Your task to perform on an android device: Go to Wikipedia Image 0: 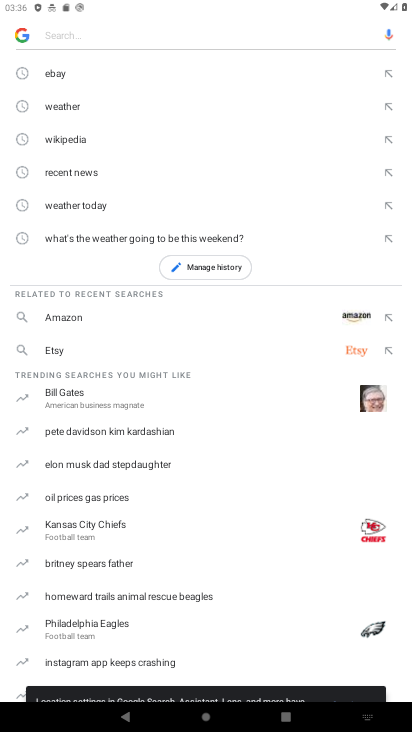
Step 0: press home button
Your task to perform on an android device: Go to Wikipedia Image 1: 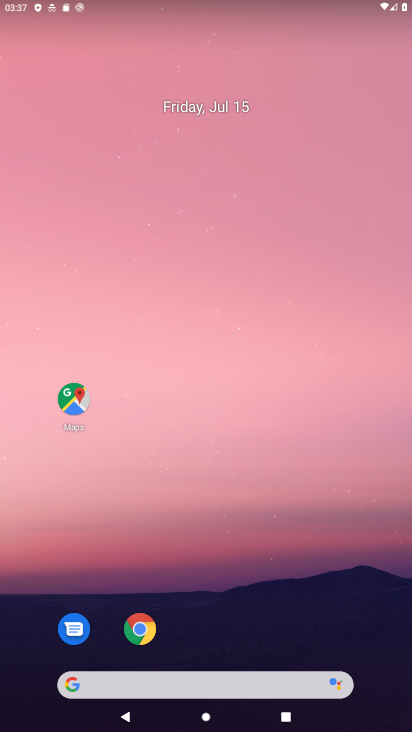
Step 1: click (134, 614)
Your task to perform on an android device: Go to Wikipedia Image 2: 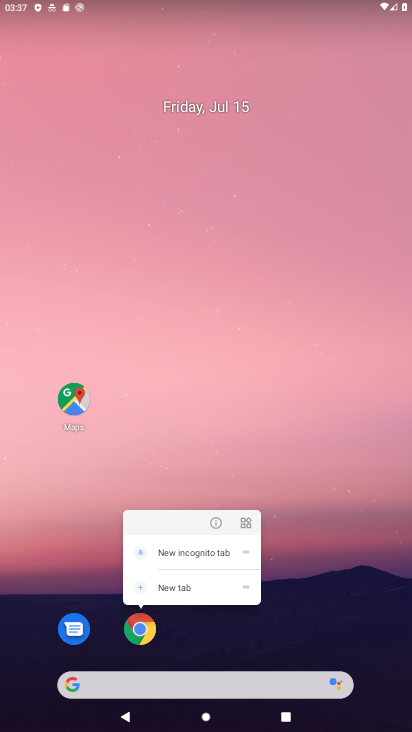
Step 2: click (141, 616)
Your task to perform on an android device: Go to Wikipedia Image 3: 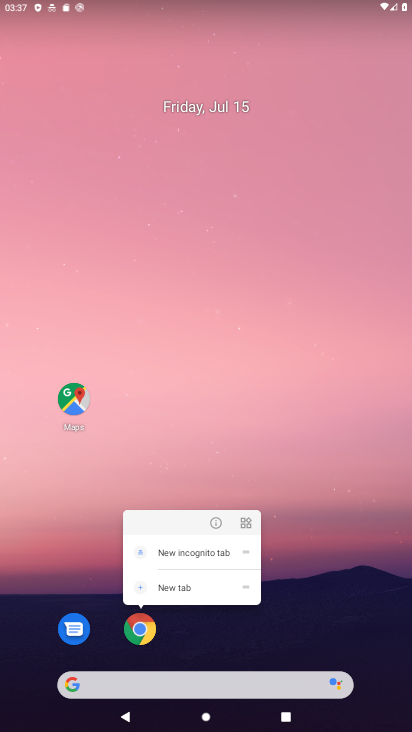
Step 3: click (141, 616)
Your task to perform on an android device: Go to Wikipedia Image 4: 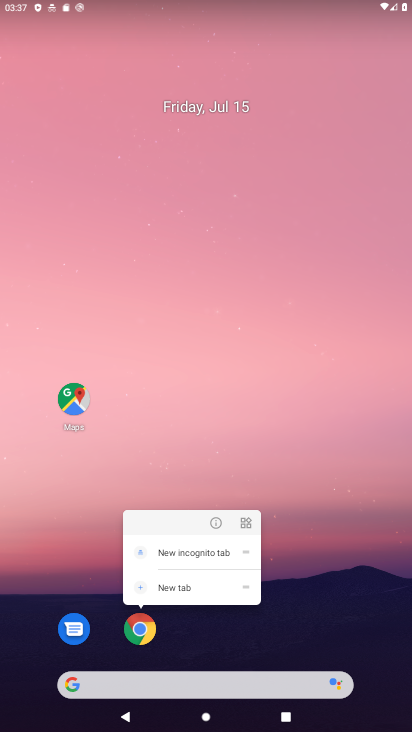
Step 4: click (137, 608)
Your task to perform on an android device: Go to Wikipedia Image 5: 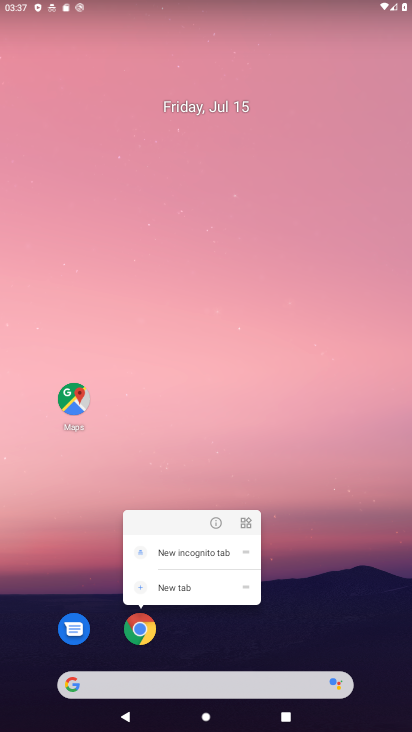
Step 5: drag from (124, 421) to (99, 285)
Your task to perform on an android device: Go to Wikipedia Image 6: 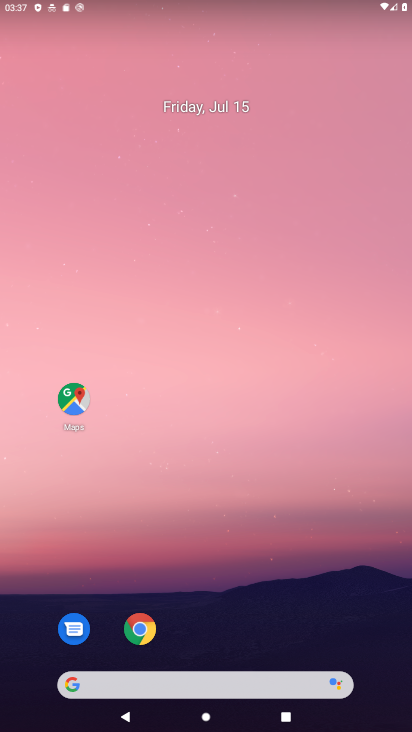
Step 6: drag from (220, 619) to (202, 84)
Your task to perform on an android device: Go to Wikipedia Image 7: 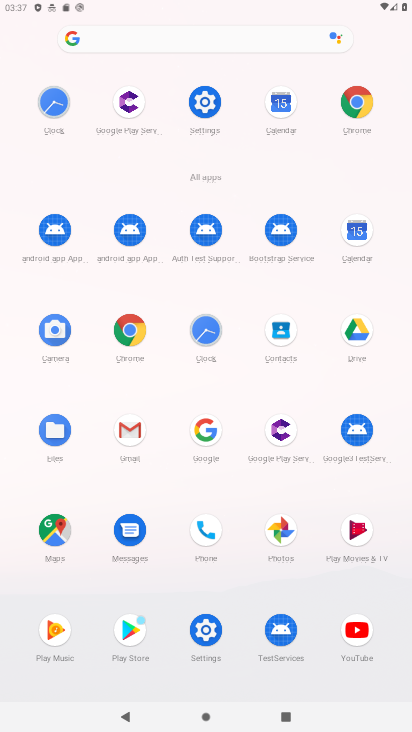
Step 7: click (123, 321)
Your task to perform on an android device: Go to Wikipedia Image 8: 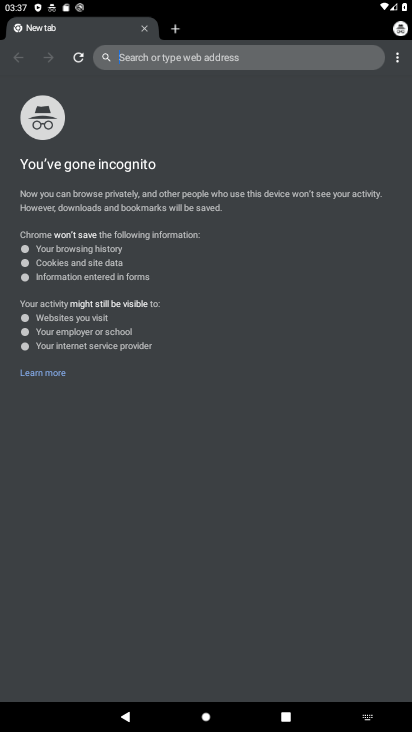
Step 8: click (143, 26)
Your task to perform on an android device: Go to Wikipedia Image 9: 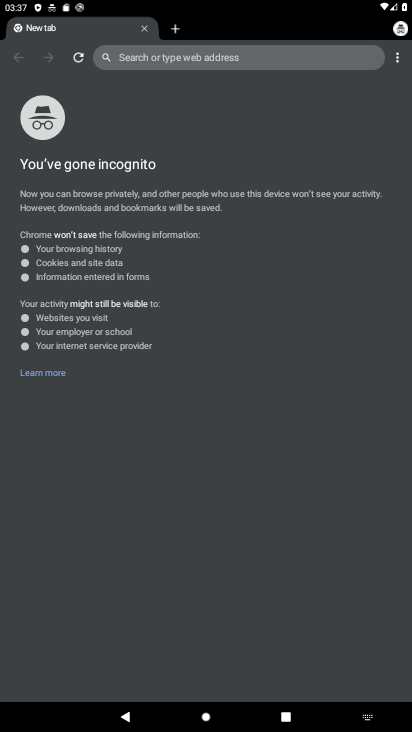
Step 9: click (143, 26)
Your task to perform on an android device: Go to Wikipedia Image 10: 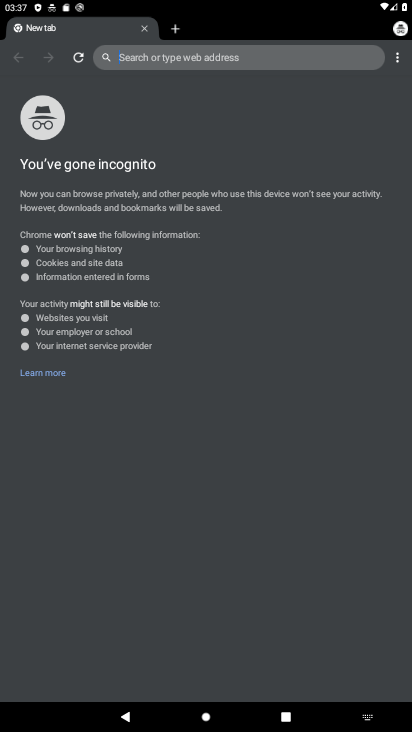
Step 10: click (137, 26)
Your task to perform on an android device: Go to Wikipedia Image 11: 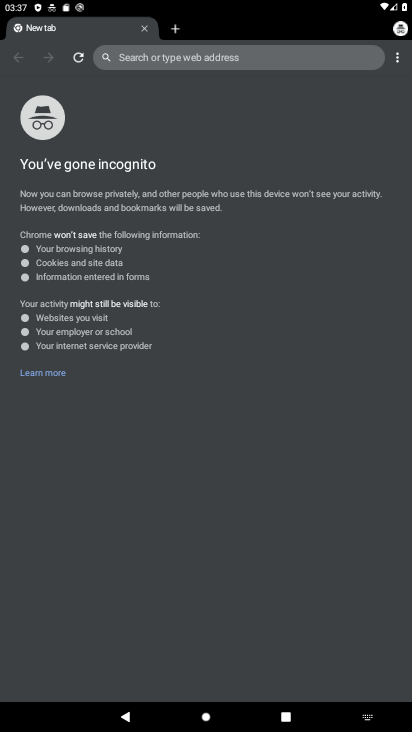
Step 11: press back button
Your task to perform on an android device: Go to Wikipedia Image 12: 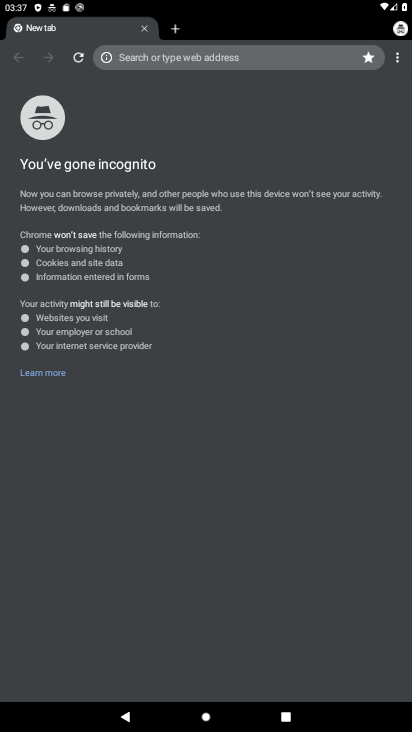
Step 12: press back button
Your task to perform on an android device: Go to Wikipedia Image 13: 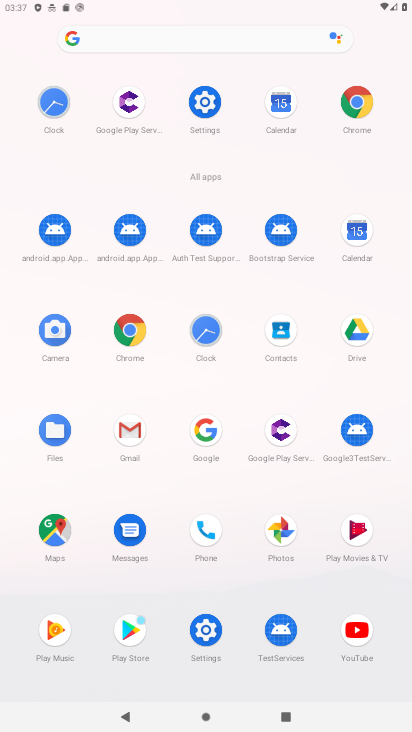
Step 13: click (134, 325)
Your task to perform on an android device: Go to Wikipedia Image 14: 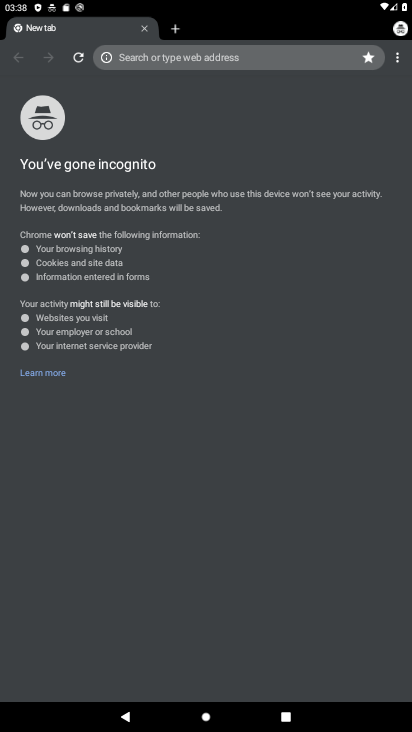
Step 14: drag from (404, 66) to (370, 53)
Your task to perform on an android device: Go to Wikipedia Image 15: 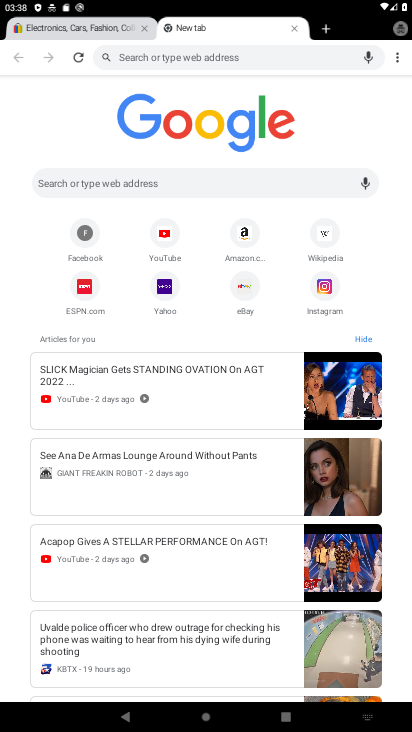
Step 15: click (344, 183)
Your task to perform on an android device: Go to Wikipedia Image 16: 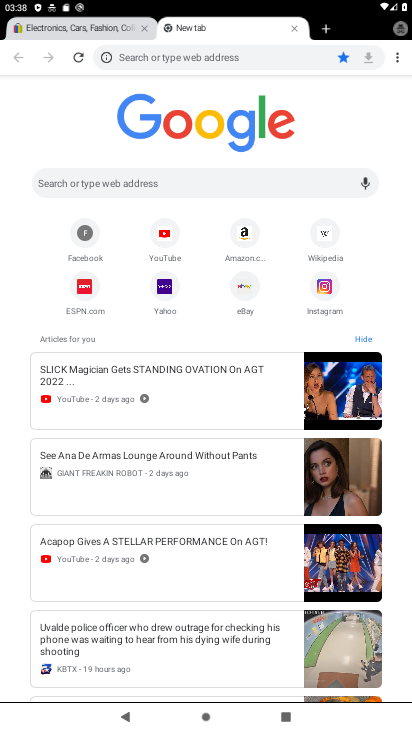
Step 16: click (317, 241)
Your task to perform on an android device: Go to Wikipedia Image 17: 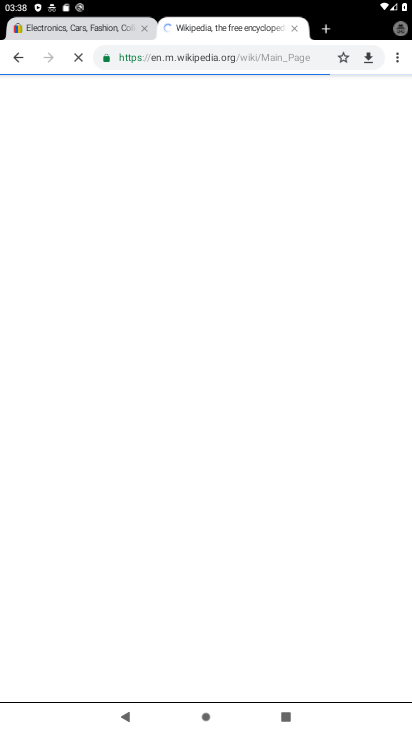
Step 17: task complete